Your task to perform on an android device: Empty the shopping cart on target.com. Add "macbook pro 15 inch" to the cart on target.com, then select checkout. Image 0: 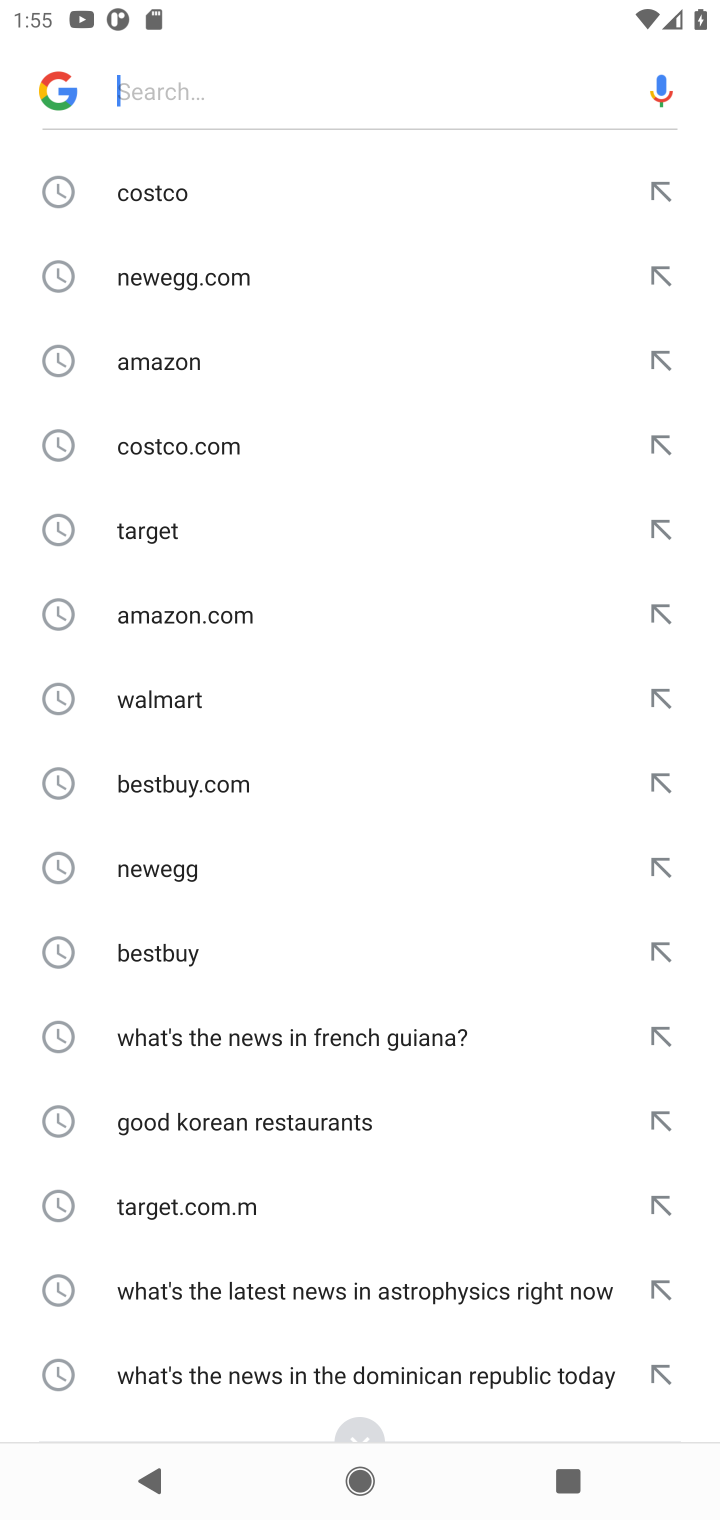
Step 0: press home button
Your task to perform on an android device: Empty the shopping cart on target.com. Add "macbook pro 15 inch" to the cart on target.com, then select checkout. Image 1: 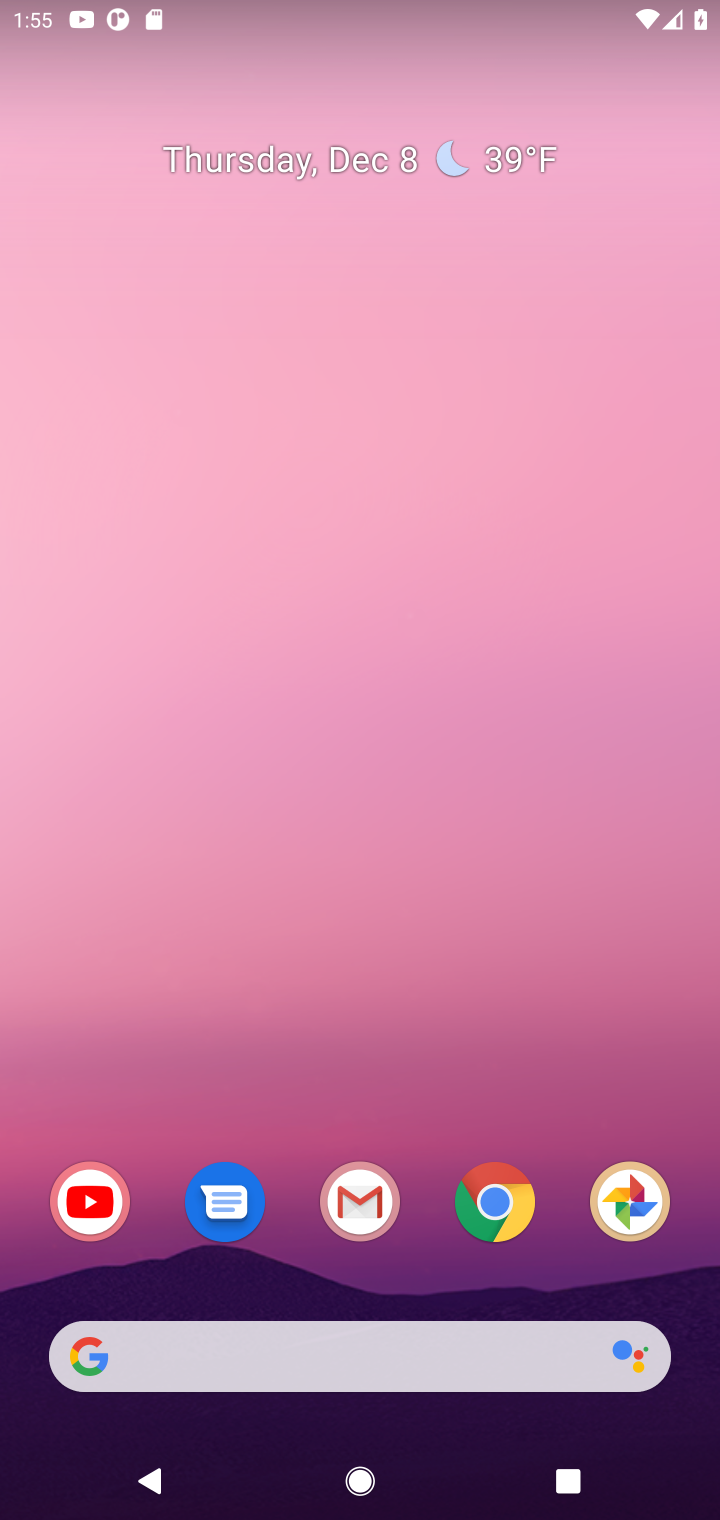
Step 1: click (498, 1198)
Your task to perform on an android device: Empty the shopping cart on target.com. Add "macbook pro 15 inch" to the cart on target.com, then select checkout. Image 2: 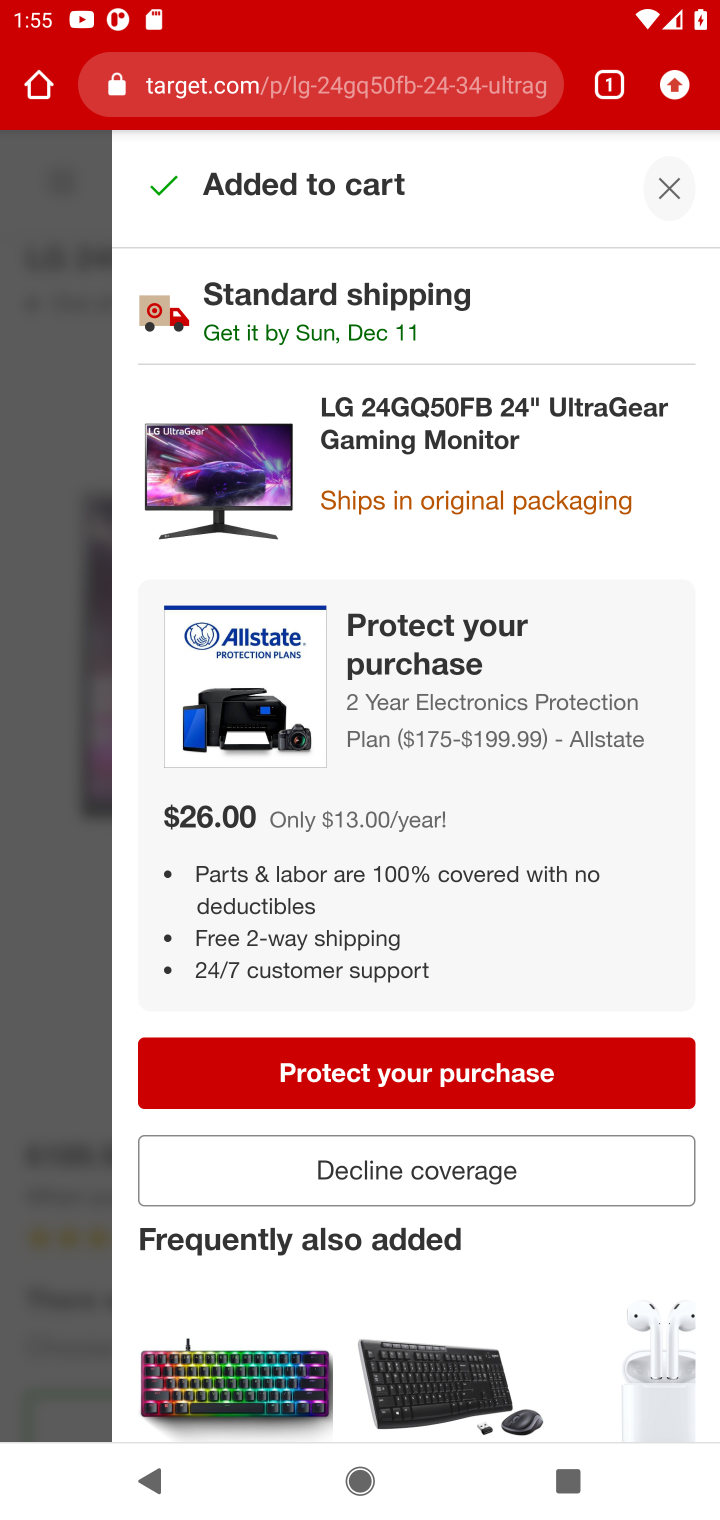
Step 2: click (673, 192)
Your task to perform on an android device: Empty the shopping cart on target.com. Add "macbook pro 15 inch" to the cart on target.com, then select checkout. Image 3: 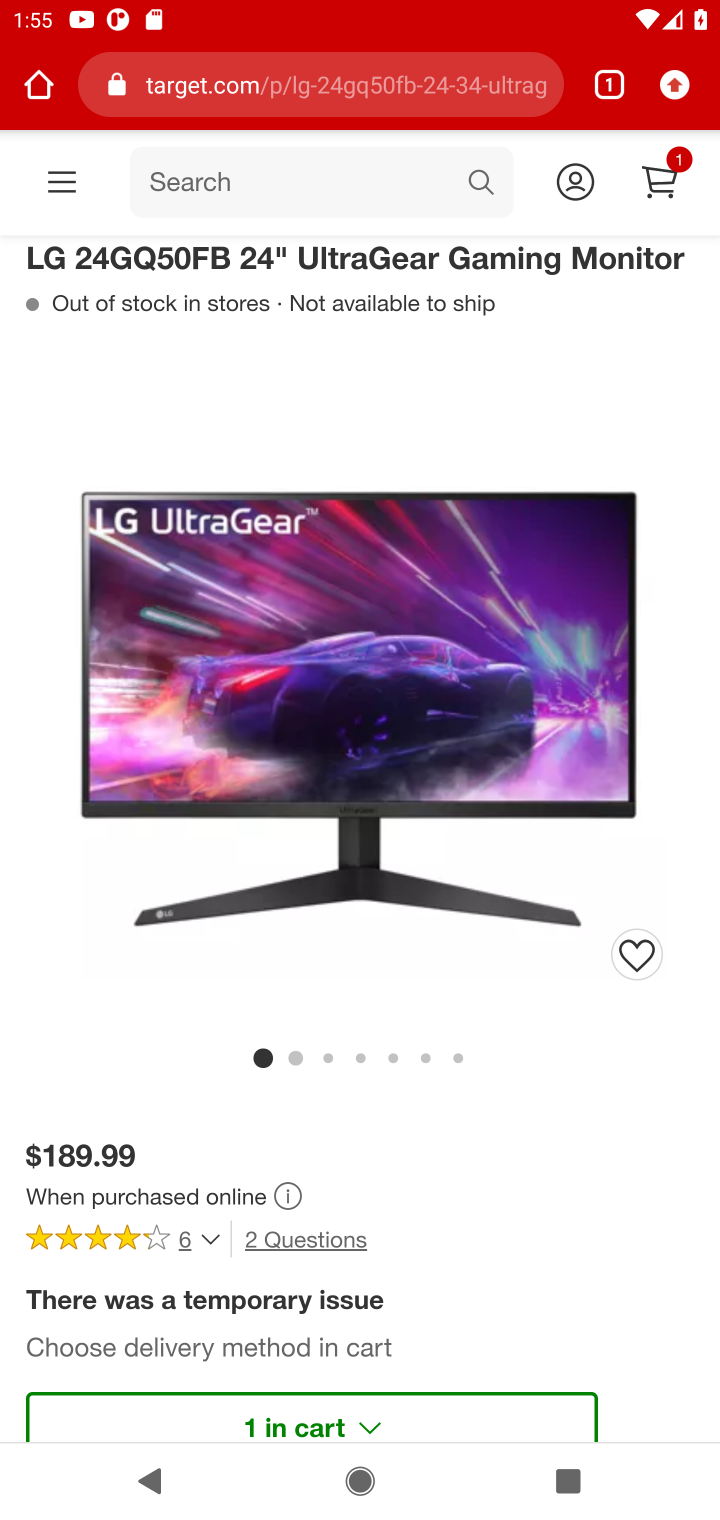
Step 3: click (680, 185)
Your task to perform on an android device: Empty the shopping cart on target.com. Add "macbook pro 15 inch" to the cart on target.com, then select checkout. Image 4: 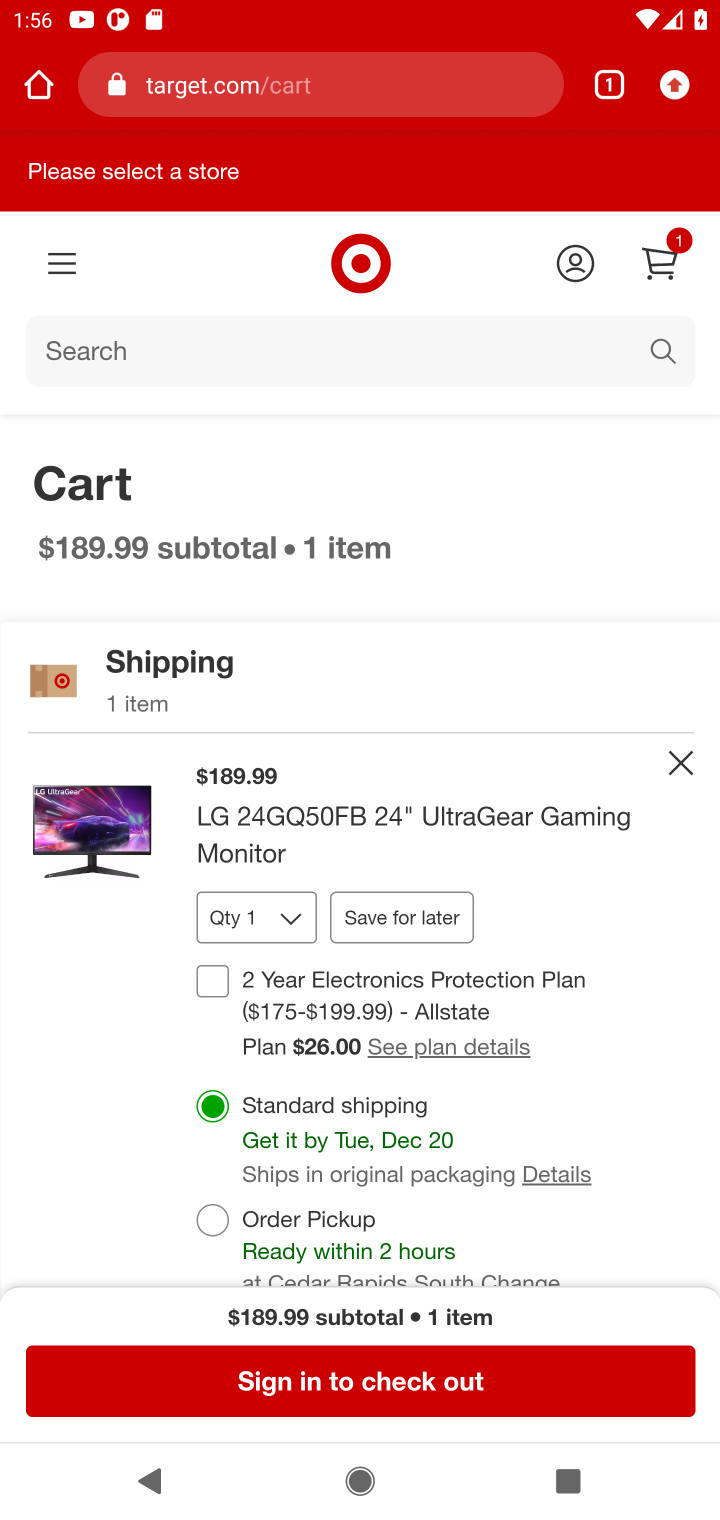
Step 4: click (682, 751)
Your task to perform on an android device: Empty the shopping cart on target.com. Add "macbook pro 15 inch" to the cart on target.com, then select checkout. Image 5: 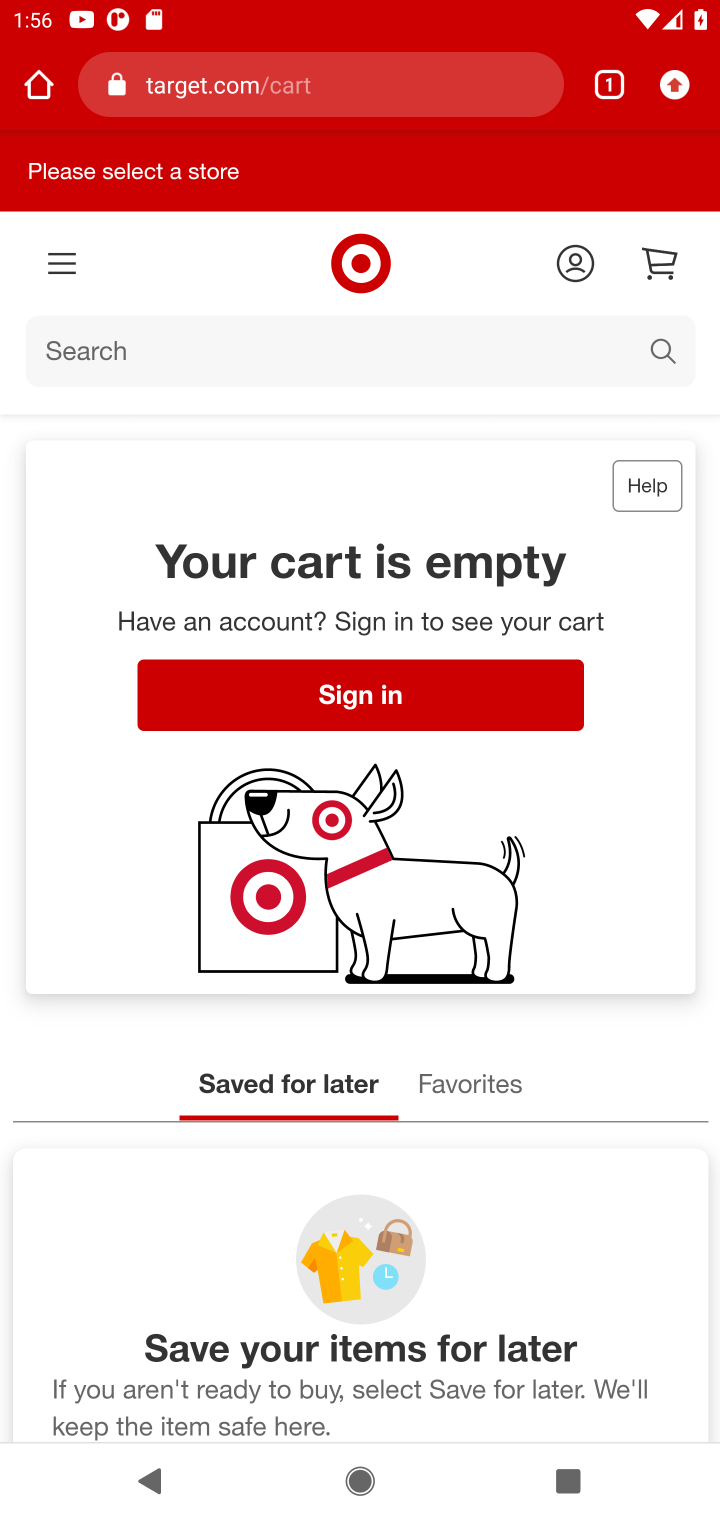
Step 5: click (662, 344)
Your task to perform on an android device: Empty the shopping cart on target.com. Add "macbook pro 15 inch" to the cart on target.com, then select checkout. Image 6: 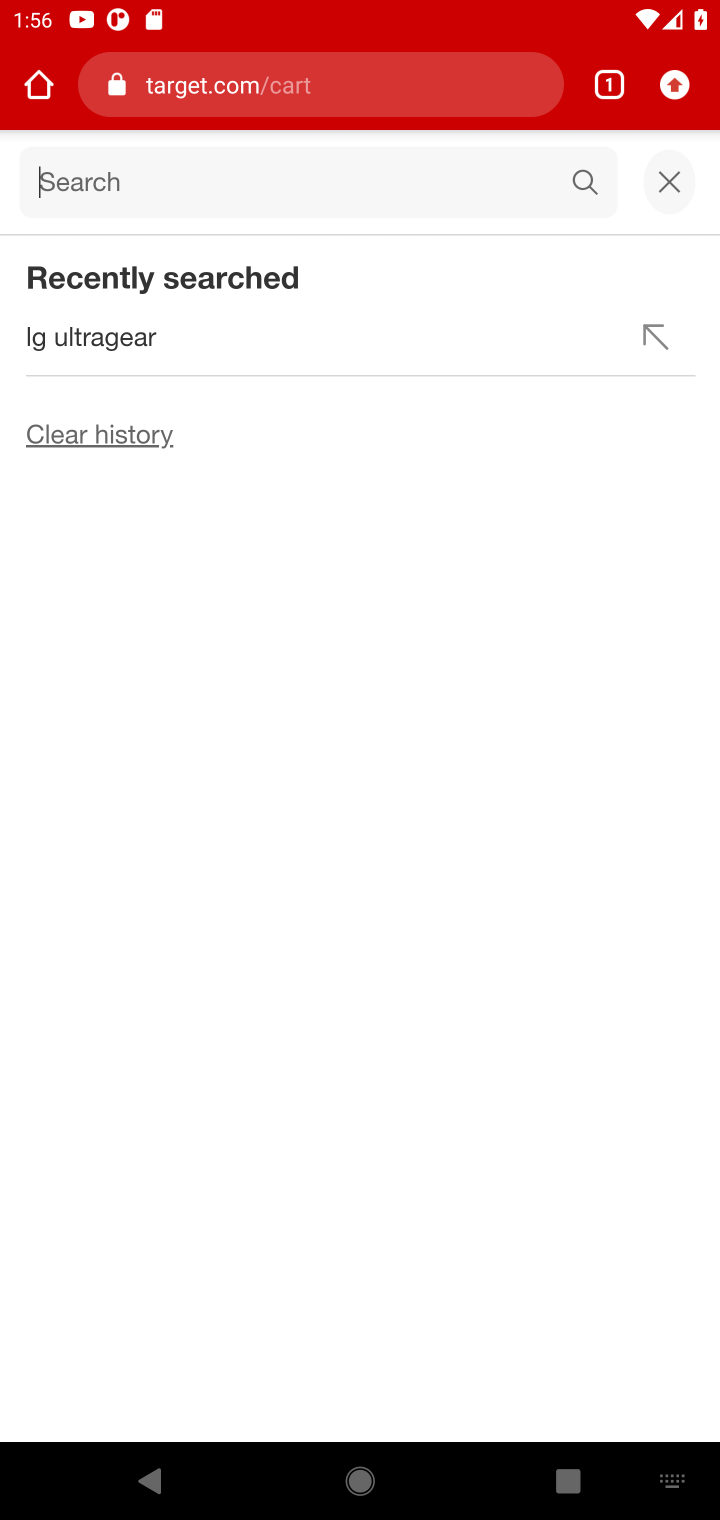
Step 6: type "macbook pro 15 inch"
Your task to perform on an android device: Empty the shopping cart on target.com. Add "macbook pro 15 inch" to the cart on target.com, then select checkout. Image 7: 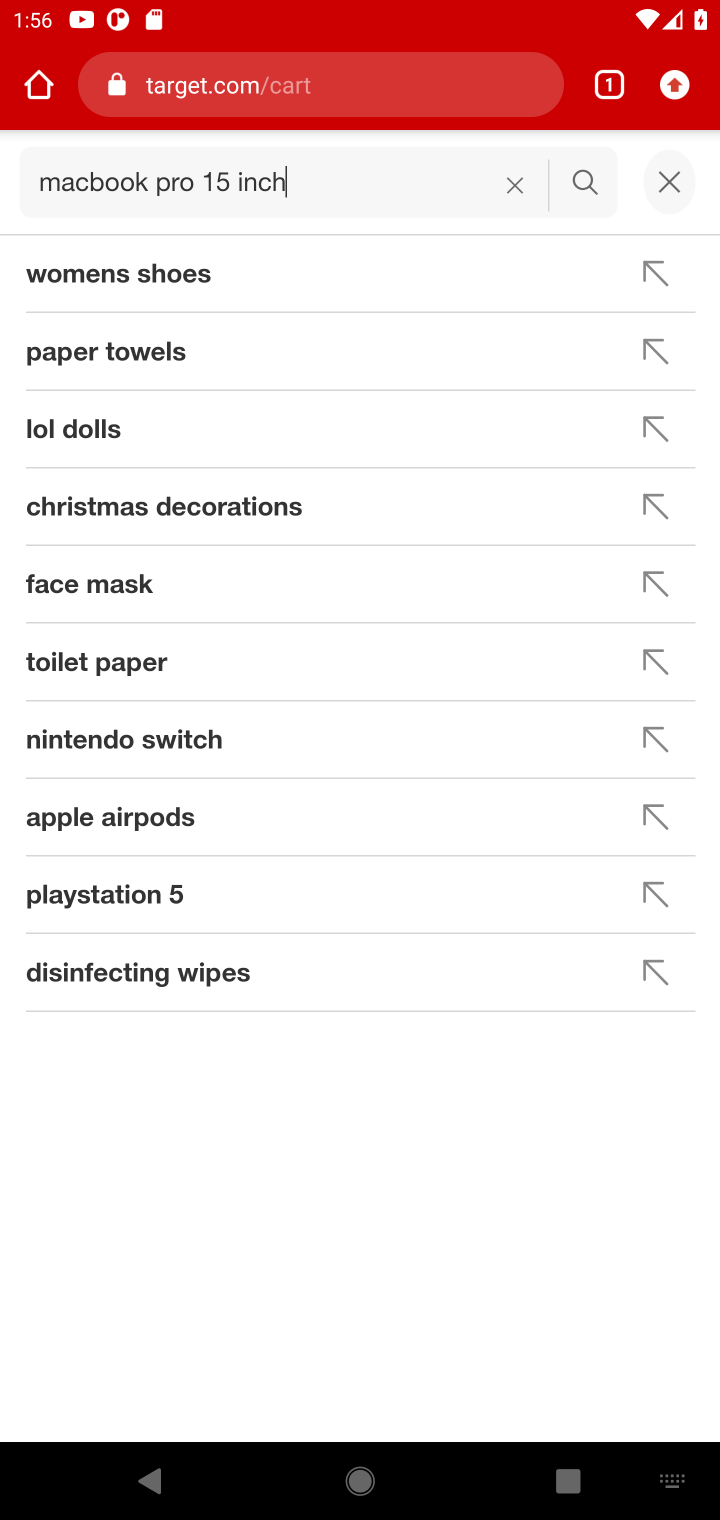
Step 7: press enter
Your task to perform on an android device: Empty the shopping cart on target.com. Add "macbook pro 15 inch" to the cart on target.com, then select checkout. Image 8: 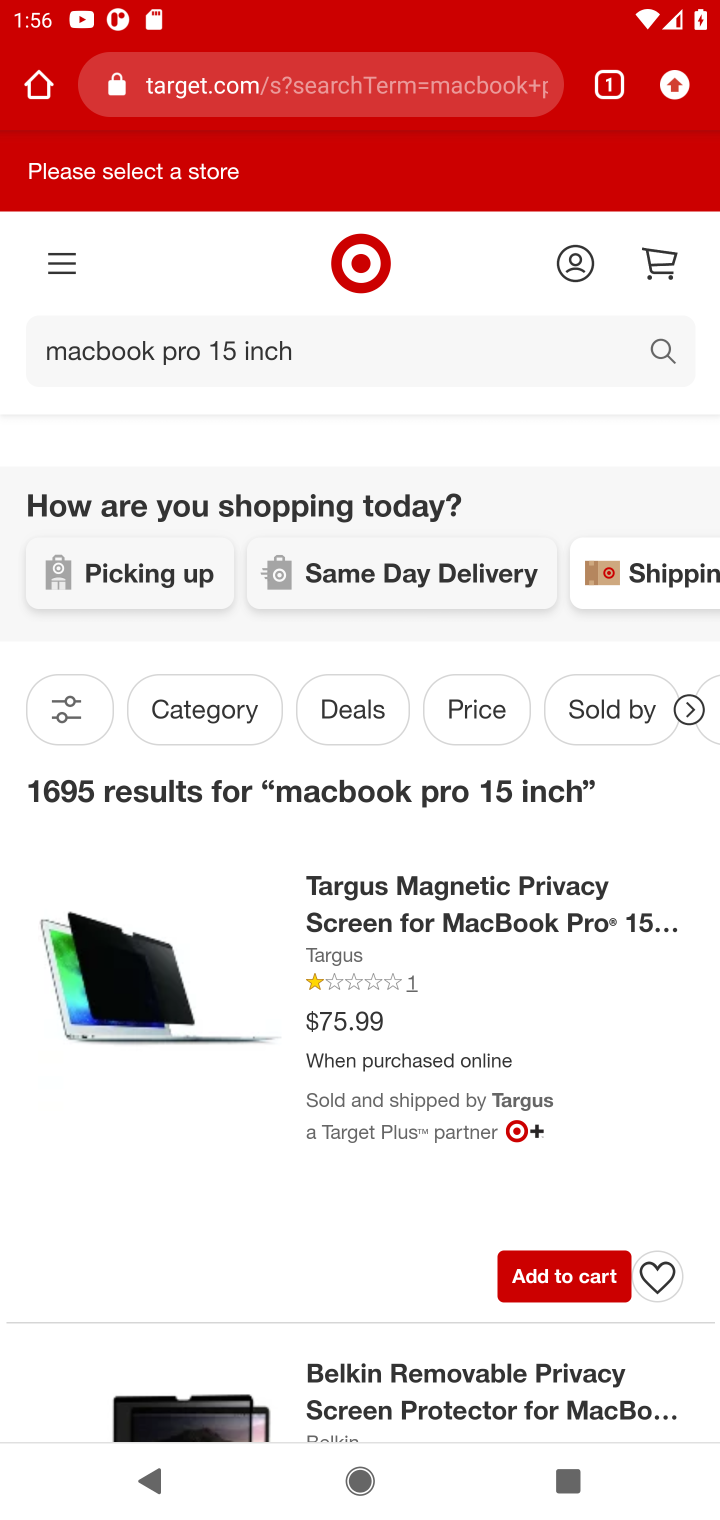
Step 8: drag from (182, 1183) to (182, 633)
Your task to perform on an android device: Empty the shopping cart on target.com. Add "macbook pro 15 inch" to the cart on target.com, then select checkout. Image 9: 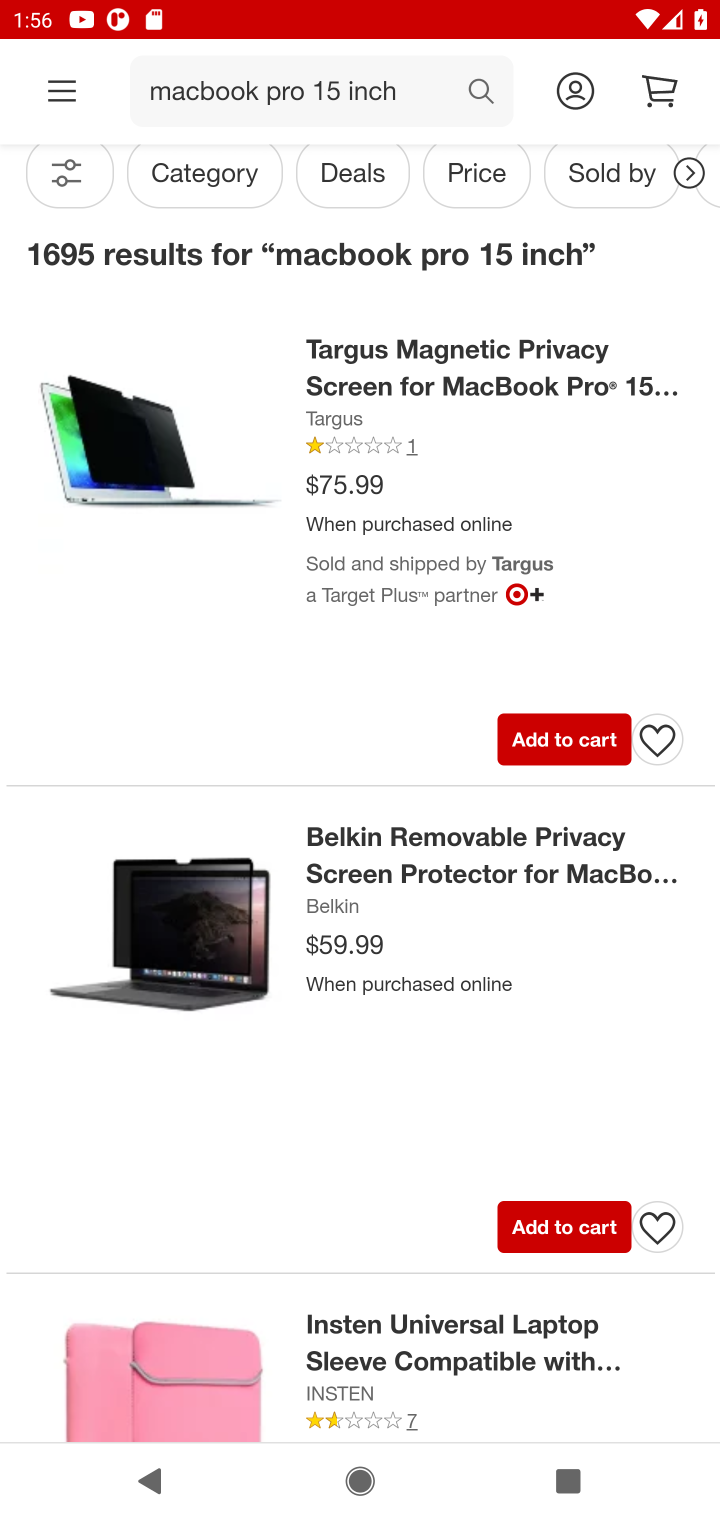
Step 9: drag from (167, 1014) to (239, 643)
Your task to perform on an android device: Empty the shopping cart on target.com. Add "macbook pro 15 inch" to the cart on target.com, then select checkout. Image 10: 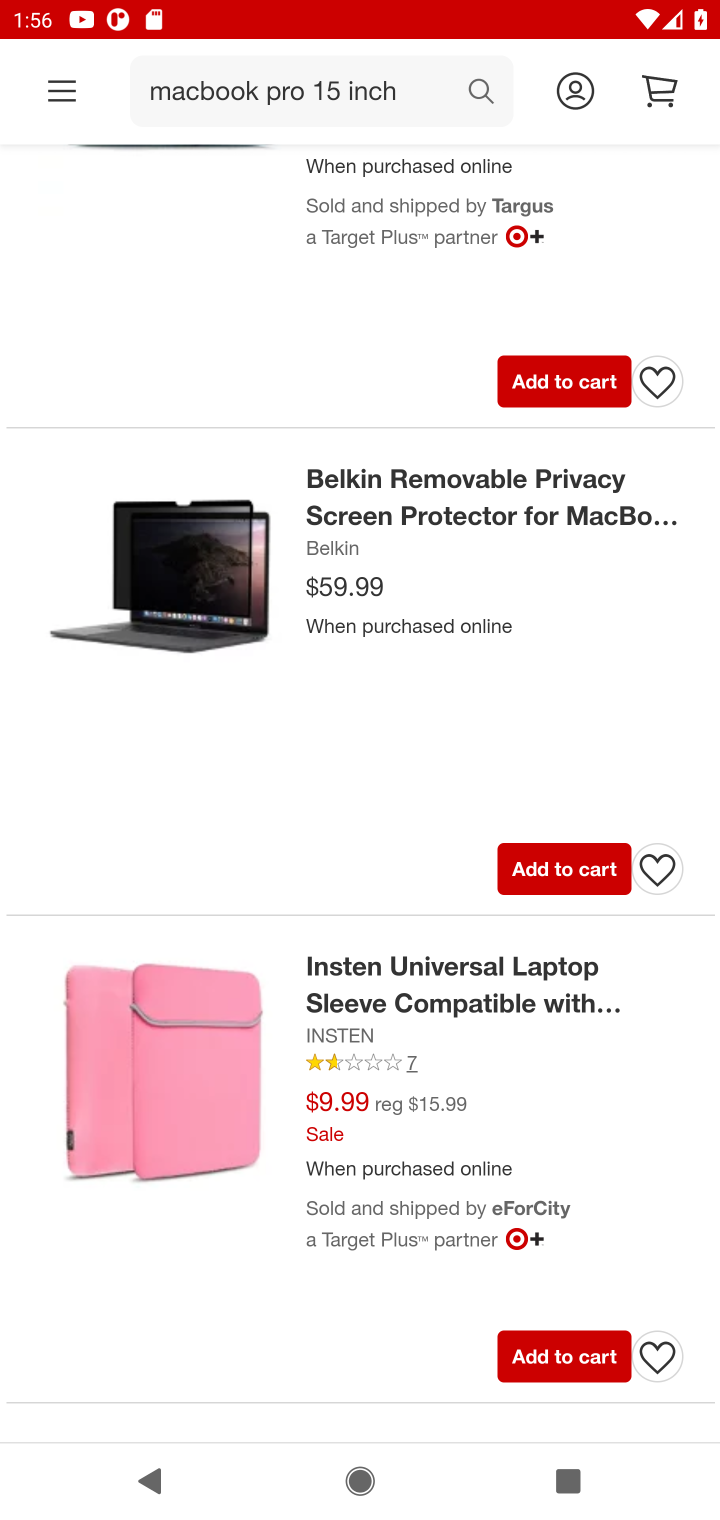
Step 10: drag from (226, 1045) to (311, 680)
Your task to perform on an android device: Empty the shopping cart on target.com. Add "macbook pro 15 inch" to the cart on target.com, then select checkout. Image 11: 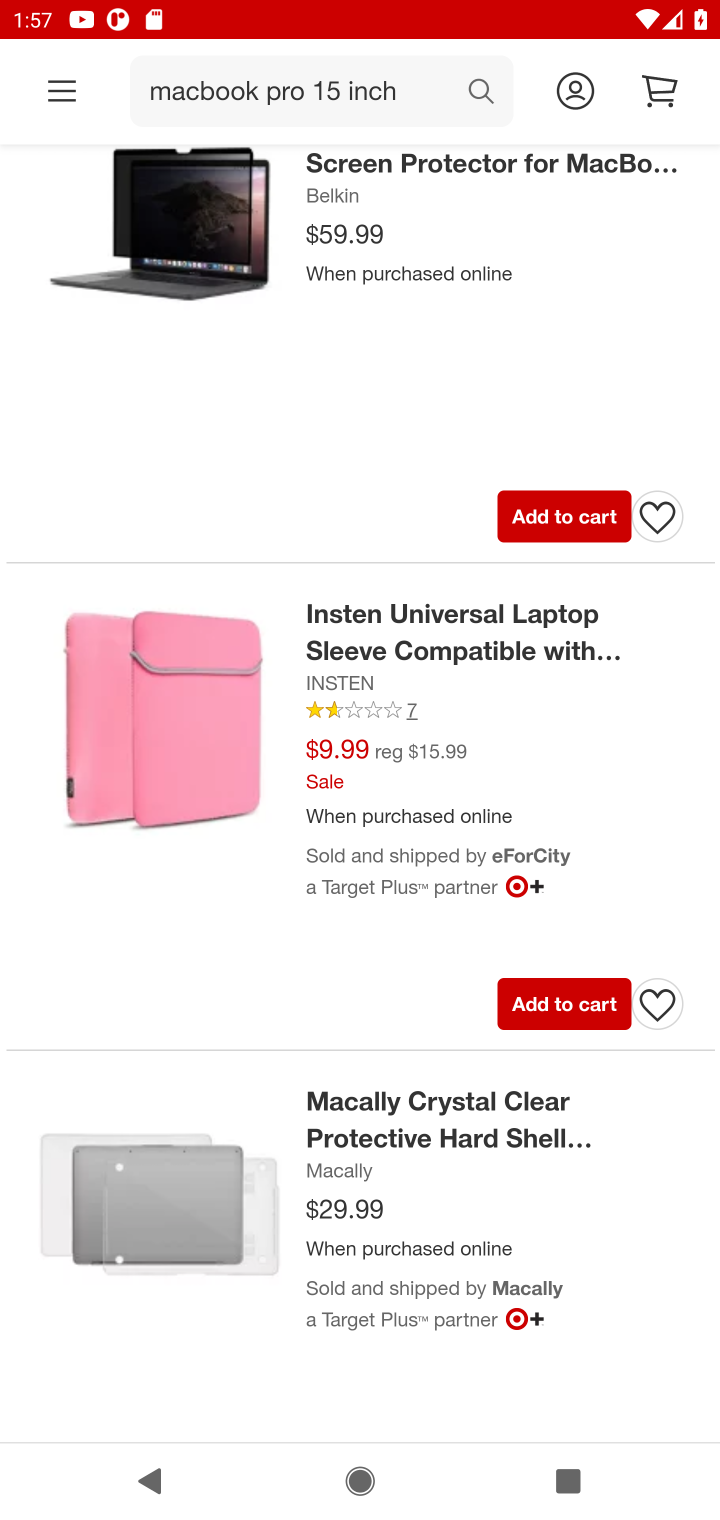
Step 11: drag from (217, 564) to (298, 1257)
Your task to perform on an android device: Empty the shopping cart on target.com. Add "macbook pro 15 inch" to the cart on target.com, then select checkout. Image 12: 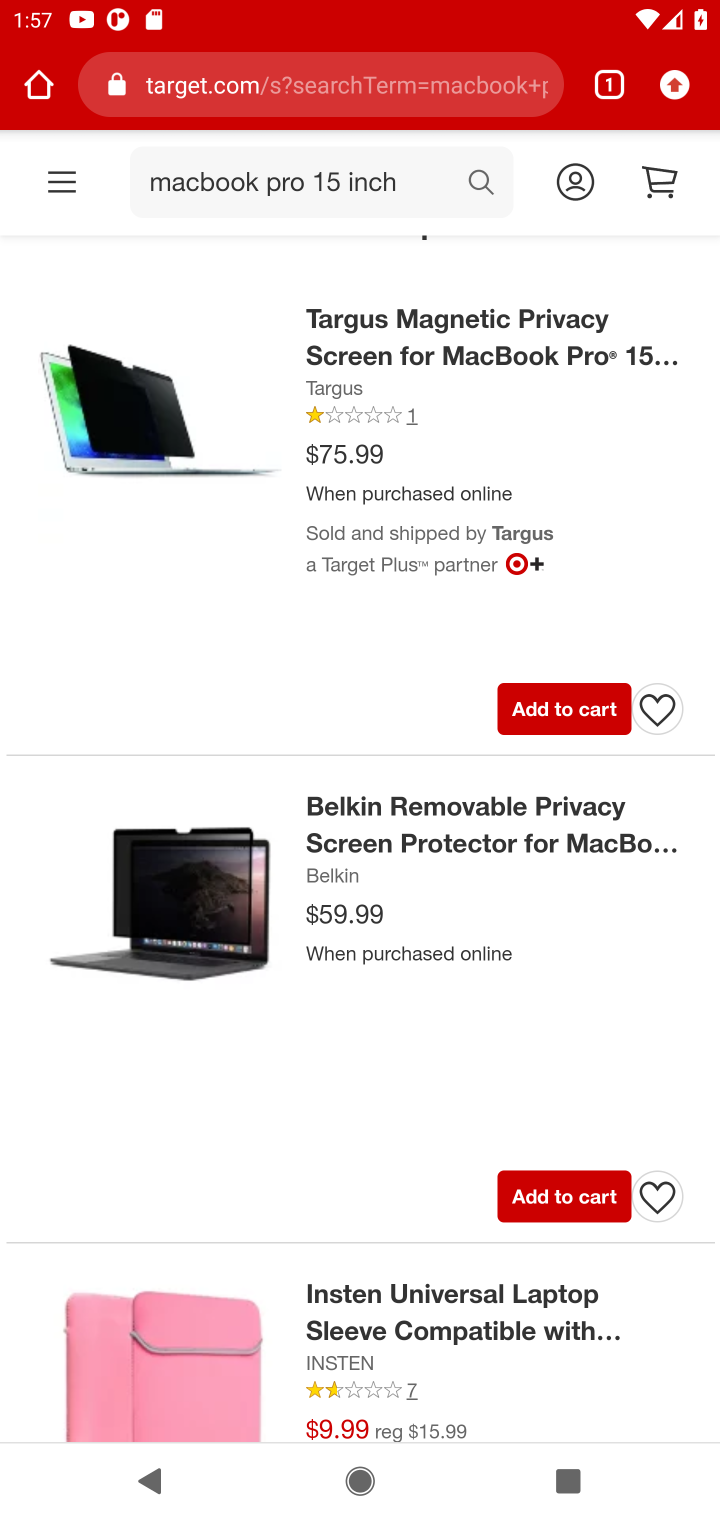
Step 12: click (164, 399)
Your task to perform on an android device: Empty the shopping cart on target.com. Add "macbook pro 15 inch" to the cart on target.com, then select checkout. Image 13: 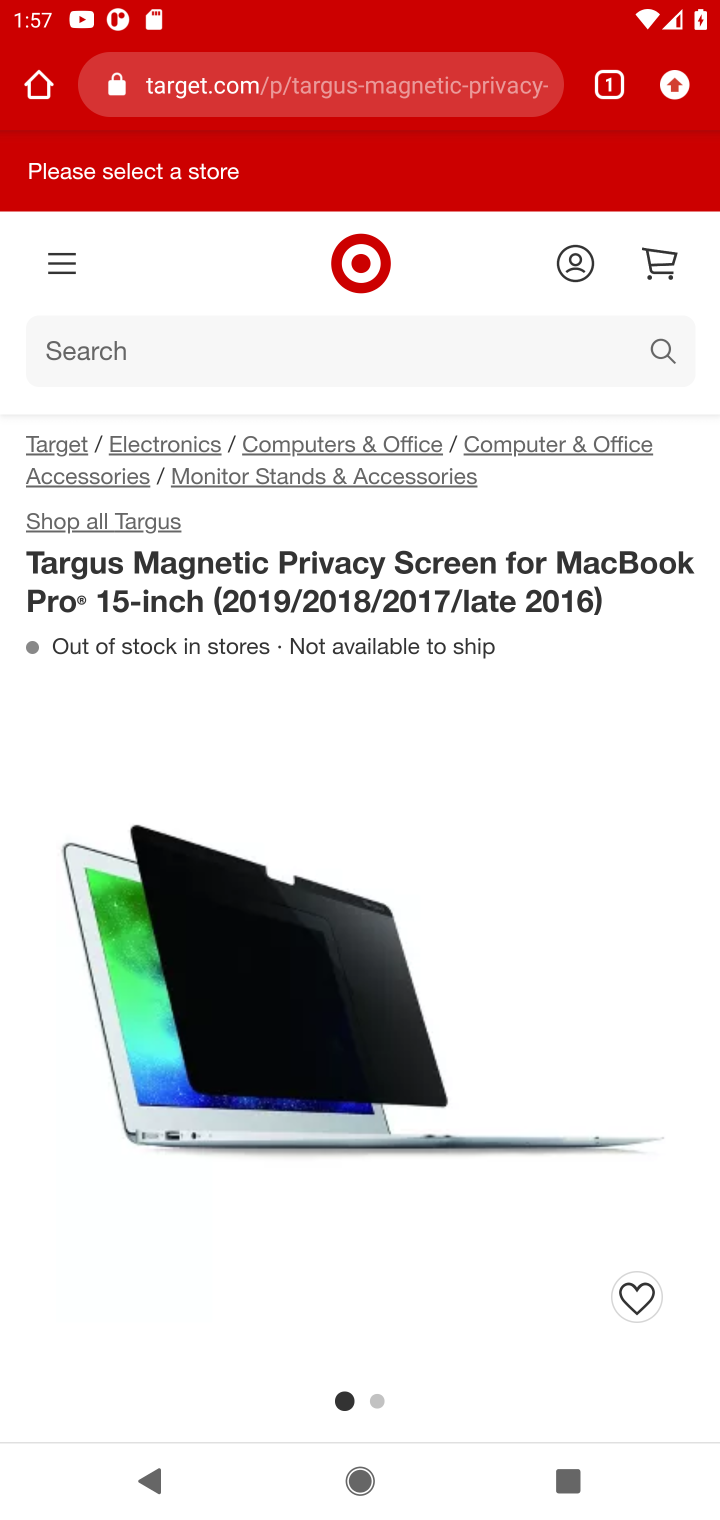
Step 13: drag from (543, 1066) to (509, 319)
Your task to perform on an android device: Empty the shopping cart on target.com. Add "macbook pro 15 inch" to the cart on target.com, then select checkout. Image 14: 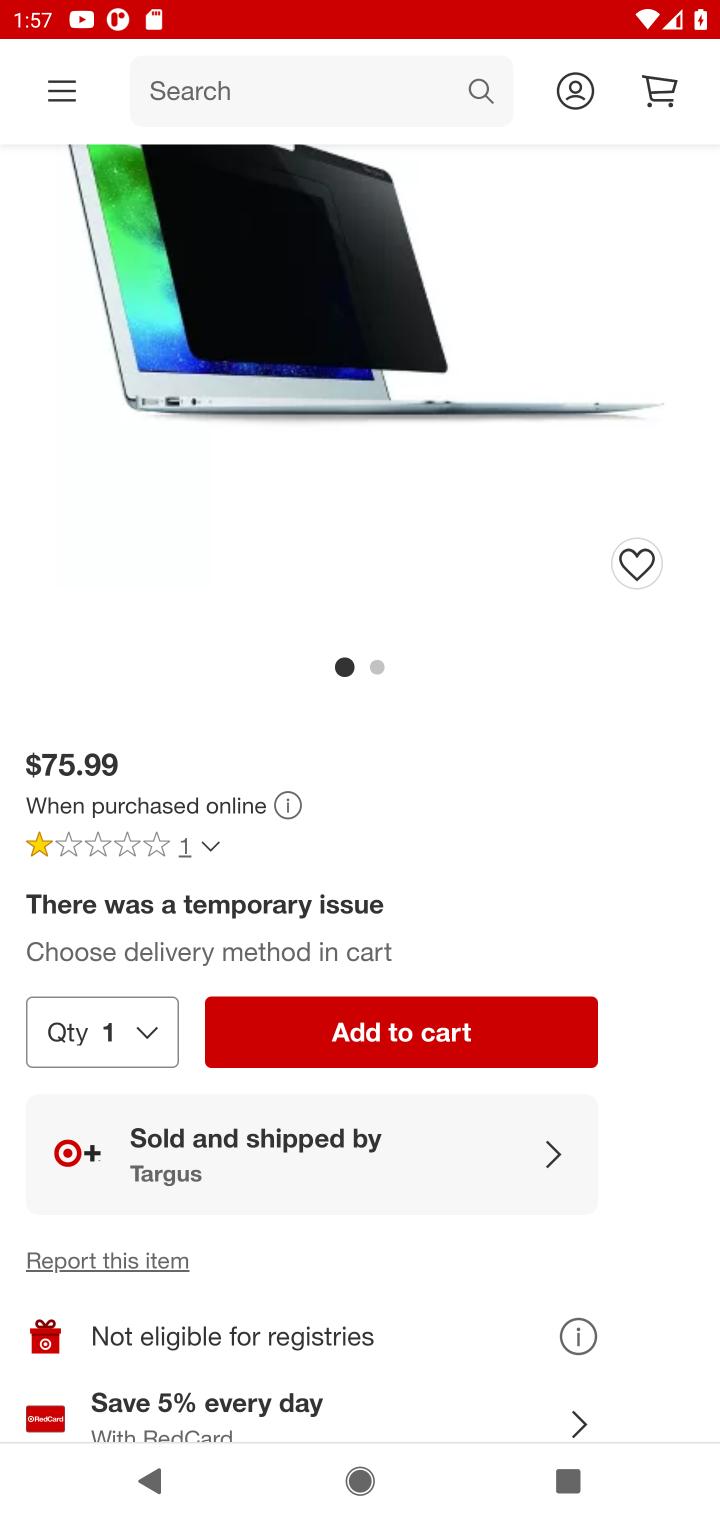
Step 14: click (443, 1025)
Your task to perform on an android device: Empty the shopping cart on target.com. Add "macbook pro 15 inch" to the cart on target.com, then select checkout. Image 15: 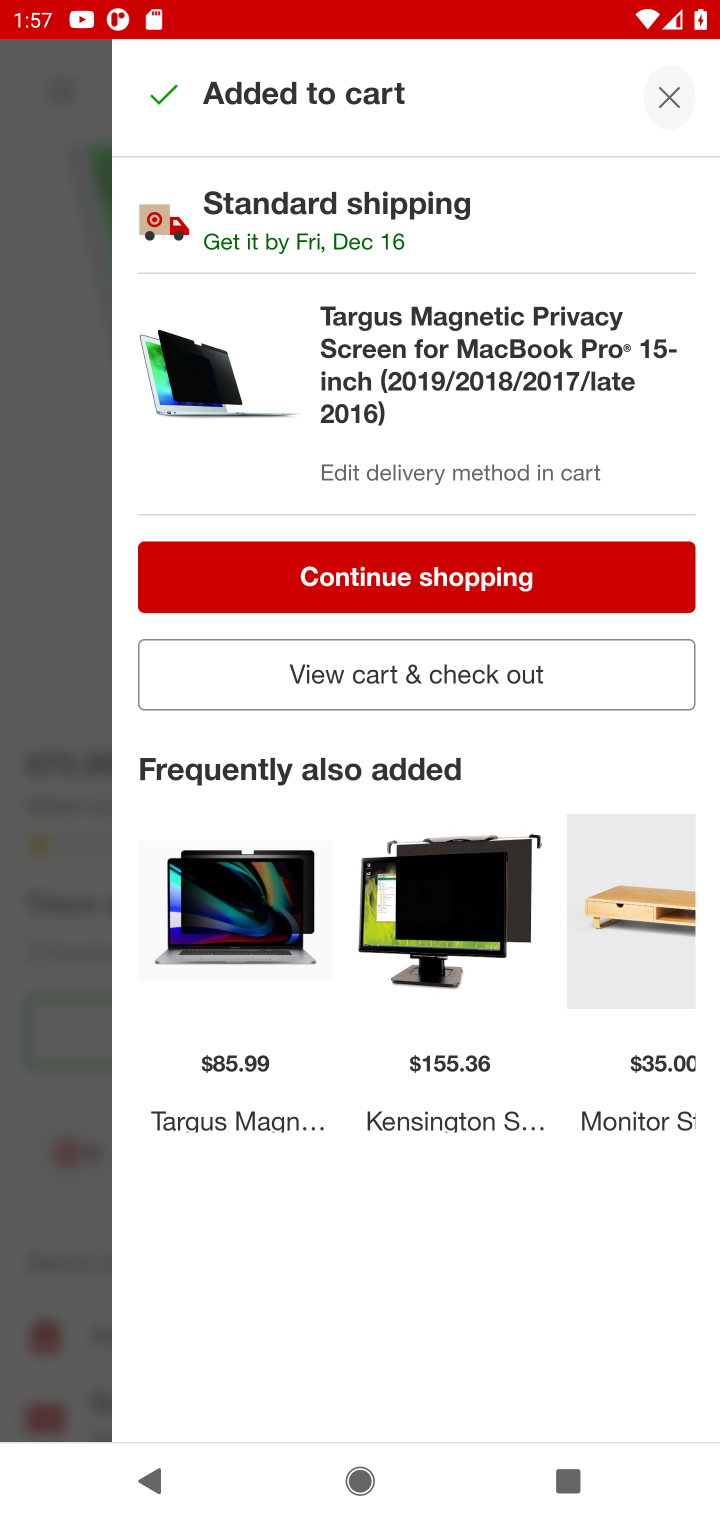
Step 15: click (462, 670)
Your task to perform on an android device: Empty the shopping cart on target.com. Add "macbook pro 15 inch" to the cart on target.com, then select checkout. Image 16: 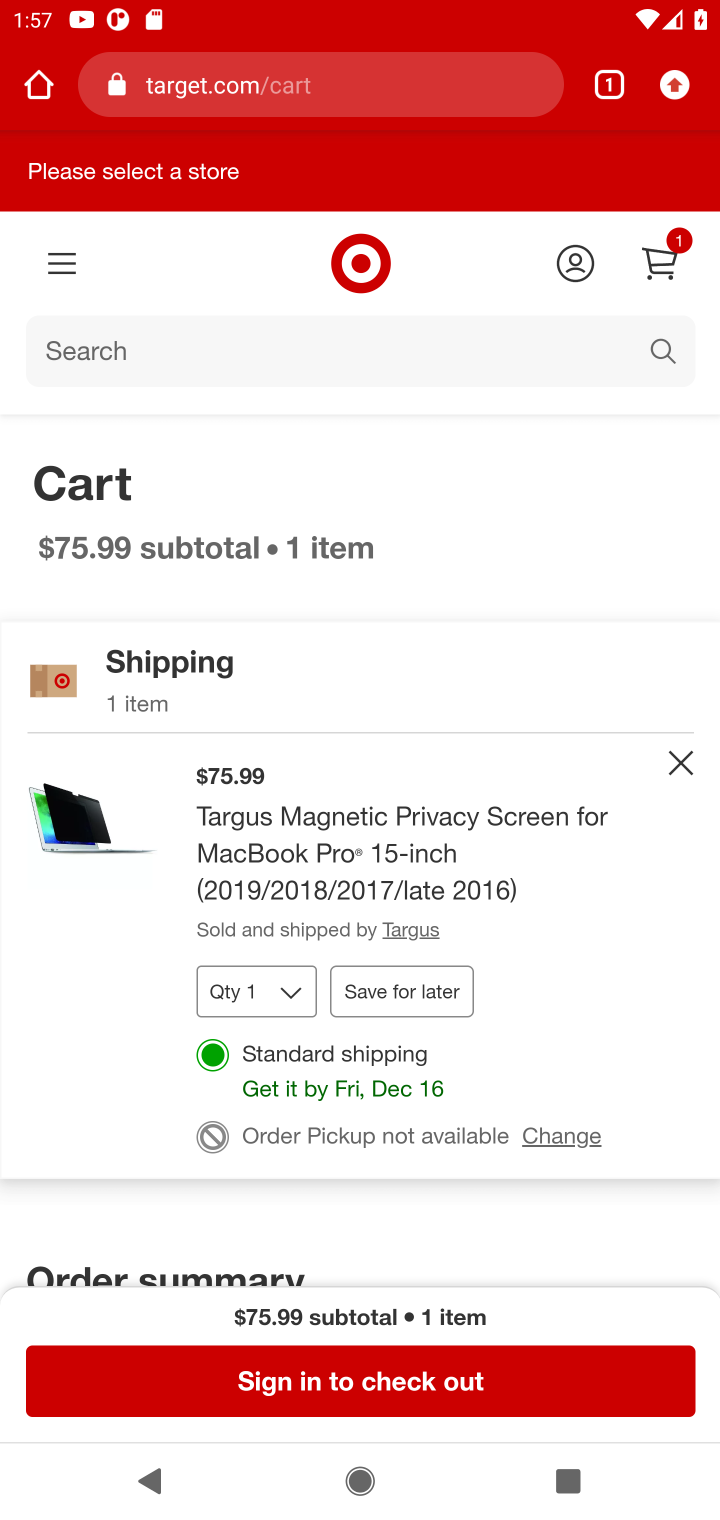
Step 16: click (366, 1380)
Your task to perform on an android device: Empty the shopping cart on target.com. Add "macbook pro 15 inch" to the cart on target.com, then select checkout. Image 17: 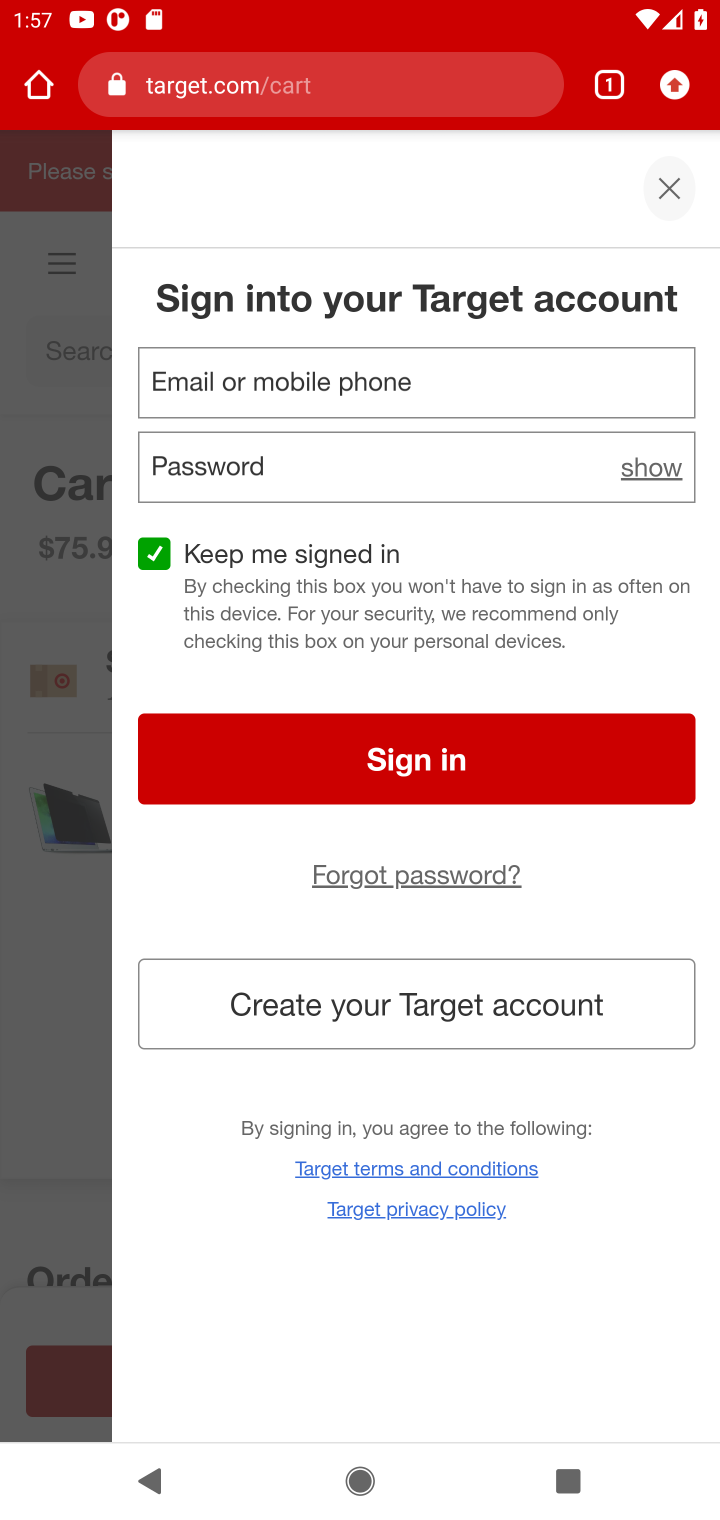
Step 17: task complete